Your task to perform on an android device: turn on priority inbox in the gmail app Image 0: 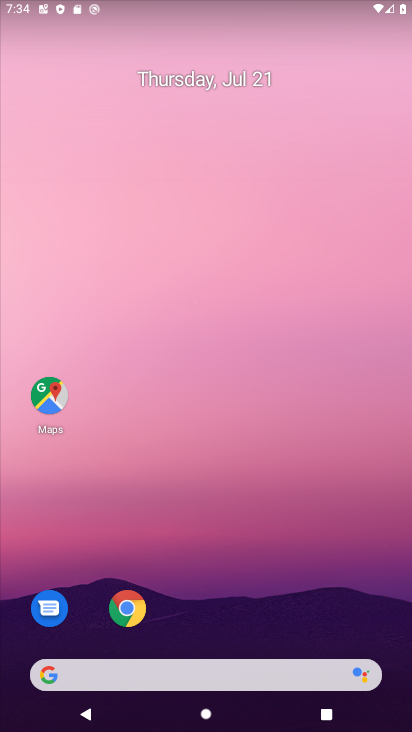
Step 0: drag from (199, 675) to (170, 49)
Your task to perform on an android device: turn on priority inbox in the gmail app Image 1: 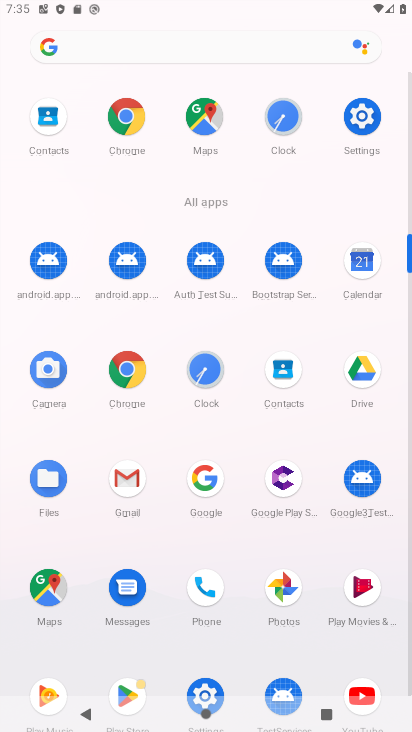
Step 1: click (129, 475)
Your task to perform on an android device: turn on priority inbox in the gmail app Image 2: 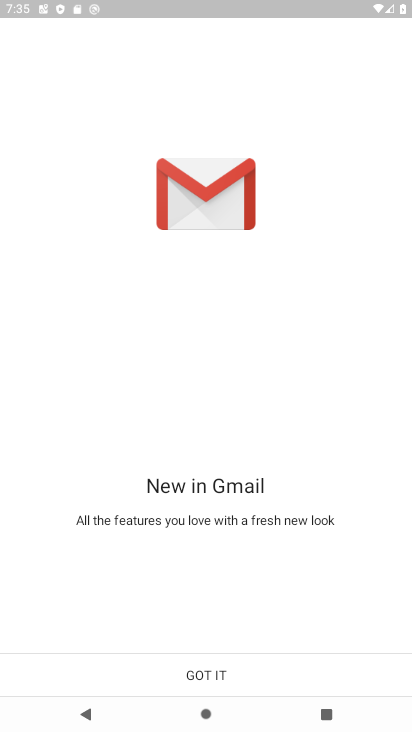
Step 2: click (198, 672)
Your task to perform on an android device: turn on priority inbox in the gmail app Image 3: 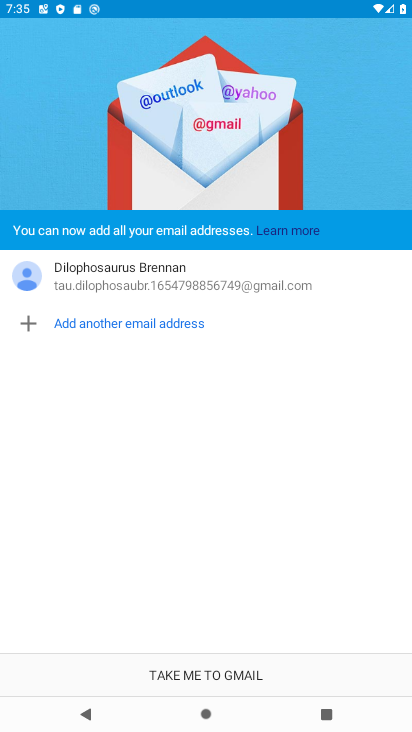
Step 3: click (198, 672)
Your task to perform on an android device: turn on priority inbox in the gmail app Image 4: 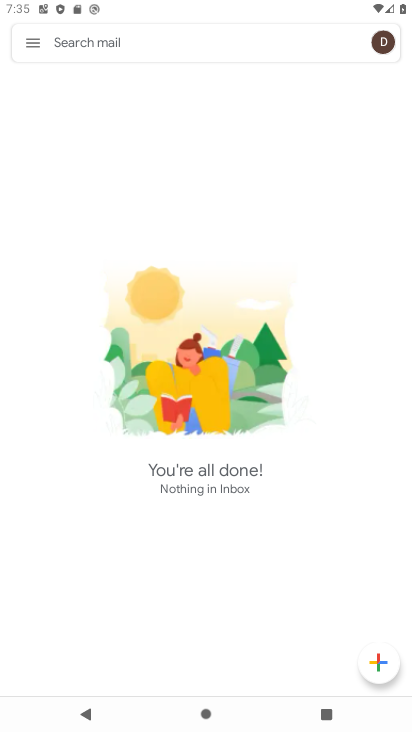
Step 4: click (33, 44)
Your task to perform on an android device: turn on priority inbox in the gmail app Image 5: 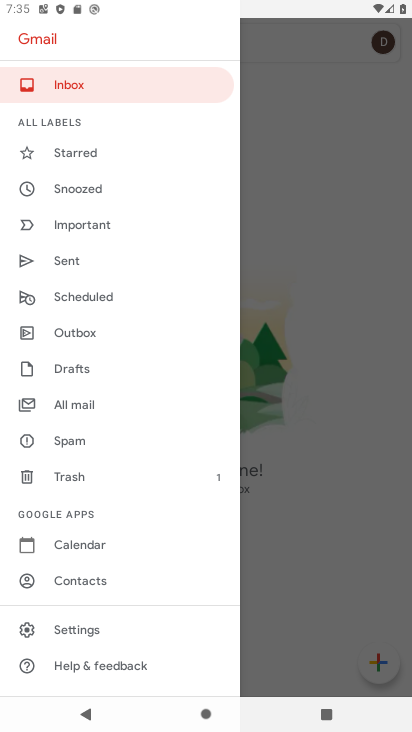
Step 5: click (82, 634)
Your task to perform on an android device: turn on priority inbox in the gmail app Image 6: 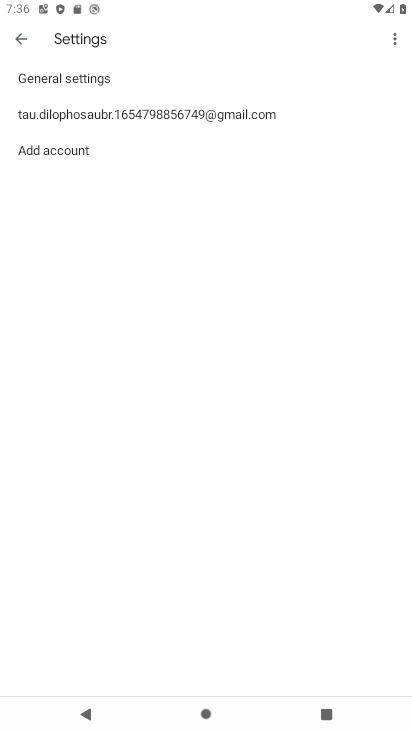
Step 6: click (225, 113)
Your task to perform on an android device: turn on priority inbox in the gmail app Image 7: 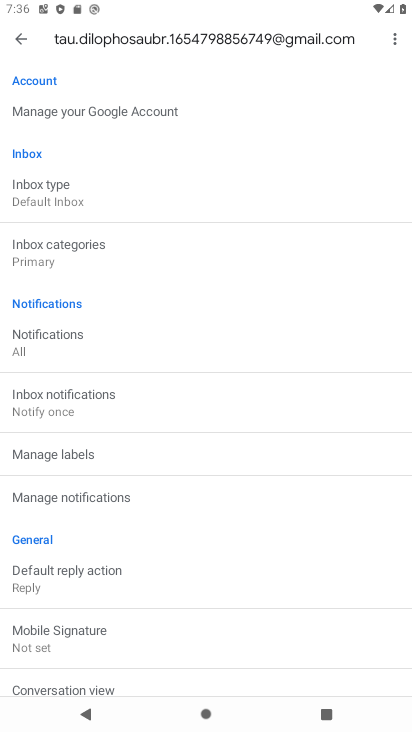
Step 7: click (45, 204)
Your task to perform on an android device: turn on priority inbox in the gmail app Image 8: 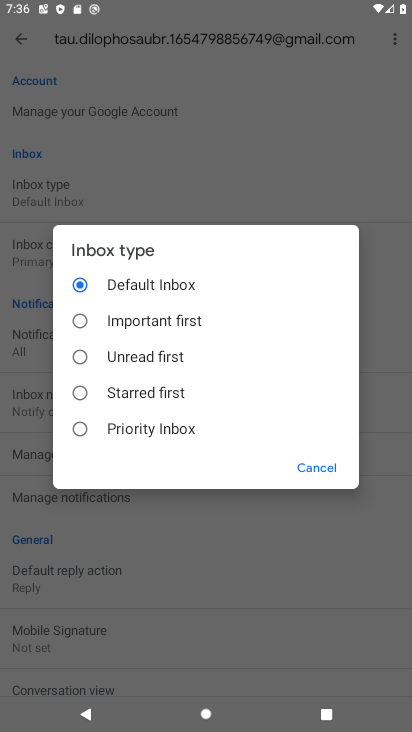
Step 8: click (80, 431)
Your task to perform on an android device: turn on priority inbox in the gmail app Image 9: 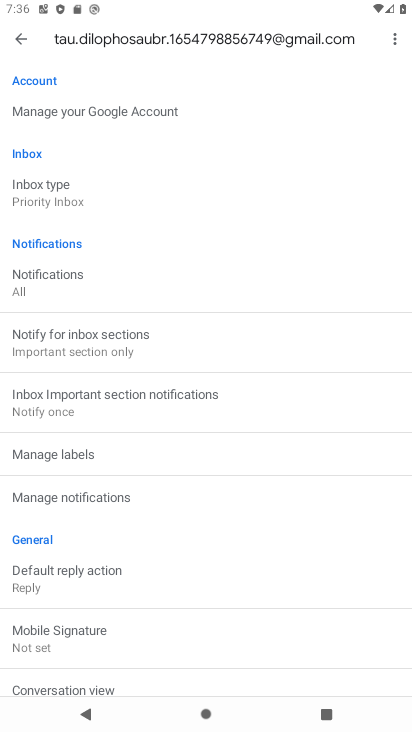
Step 9: task complete